Your task to perform on an android device: Open Maps and search for coffee Image 0: 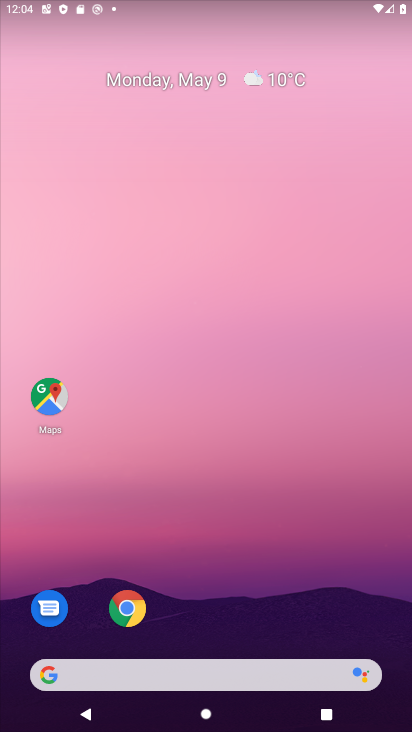
Step 0: click (41, 397)
Your task to perform on an android device: Open Maps and search for coffee Image 1: 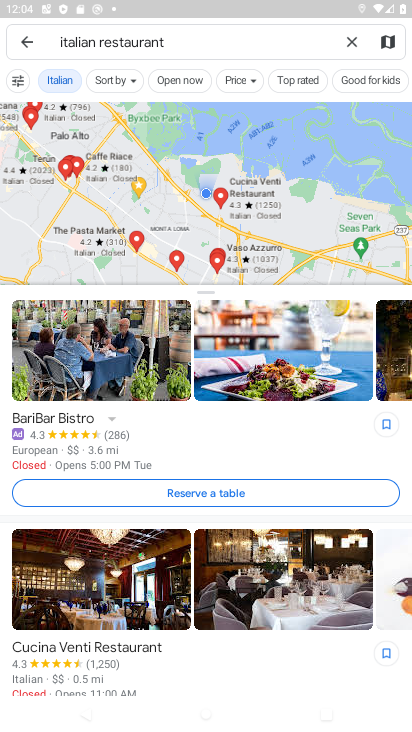
Step 1: click (169, 43)
Your task to perform on an android device: Open Maps and search for coffee Image 2: 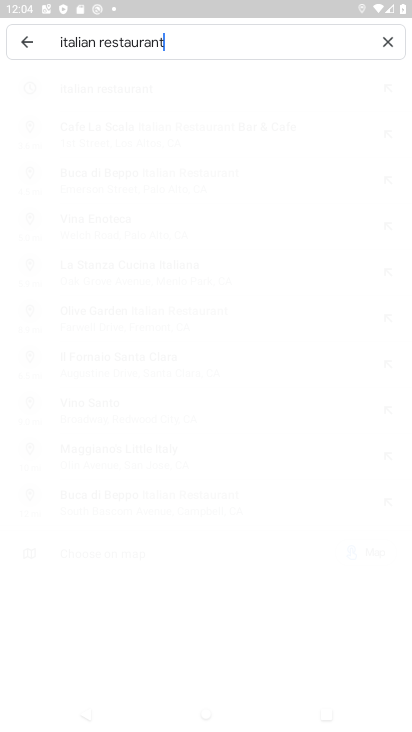
Step 2: click (351, 42)
Your task to perform on an android device: Open Maps and search for coffee Image 3: 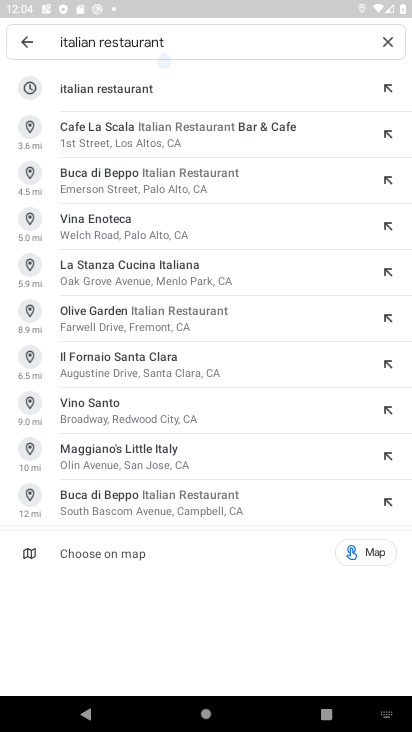
Step 3: click (387, 36)
Your task to perform on an android device: Open Maps and search for coffee Image 4: 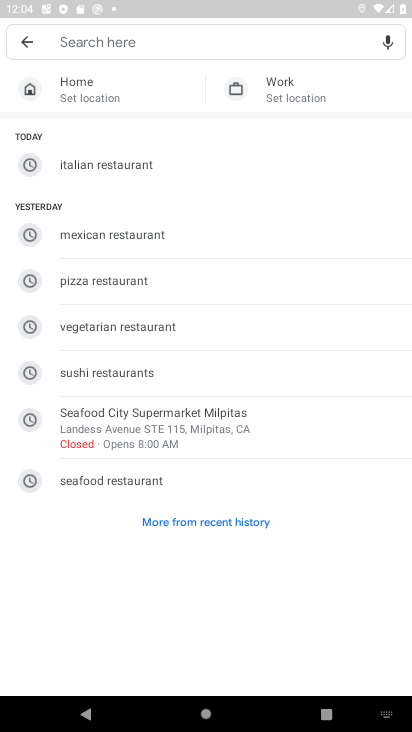
Step 4: type " coffee"
Your task to perform on an android device: Open Maps and search for coffee Image 5: 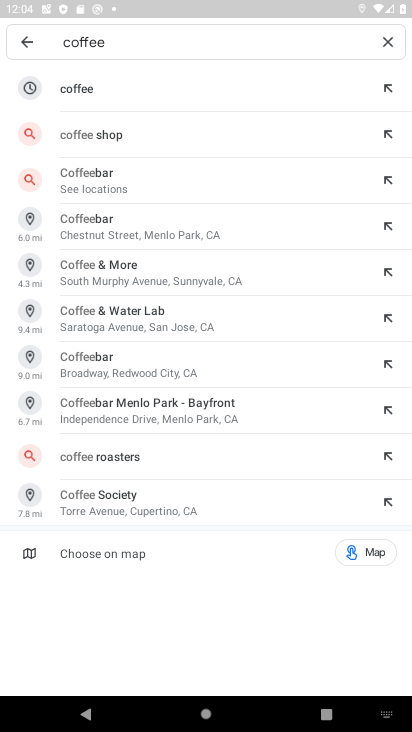
Step 5: click (142, 106)
Your task to perform on an android device: Open Maps and search for coffee Image 6: 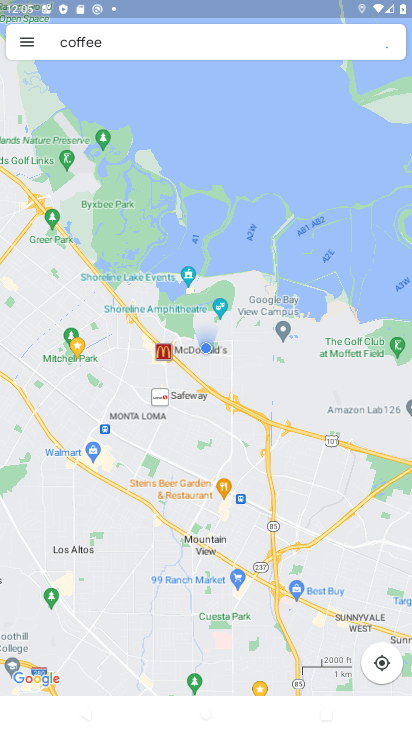
Step 6: task complete